Your task to perform on an android device: Open Amazon Image 0: 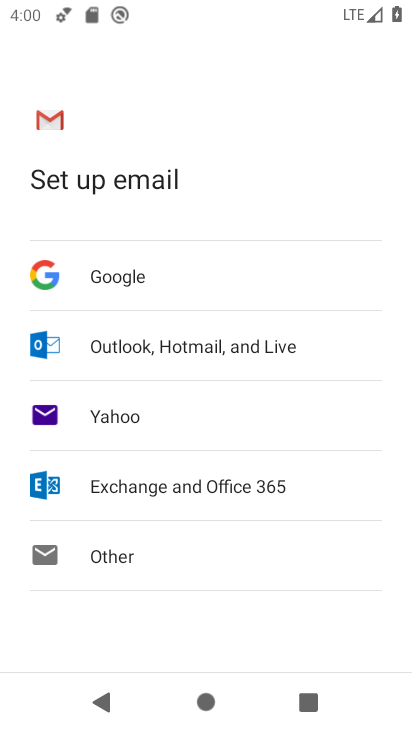
Step 0: press home button
Your task to perform on an android device: Open Amazon Image 1: 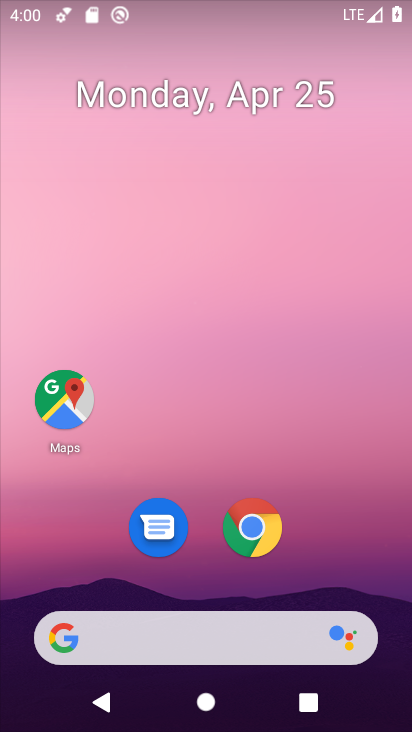
Step 1: click (254, 530)
Your task to perform on an android device: Open Amazon Image 2: 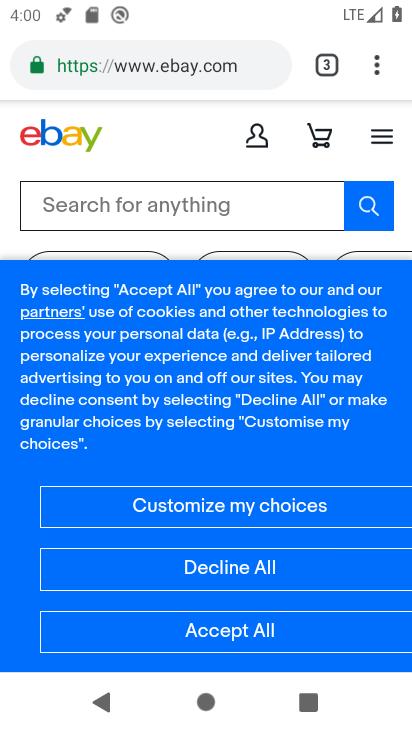
Step 2: click (201, 71)
Your task to perform on an android device: Open Amazon Image 3: 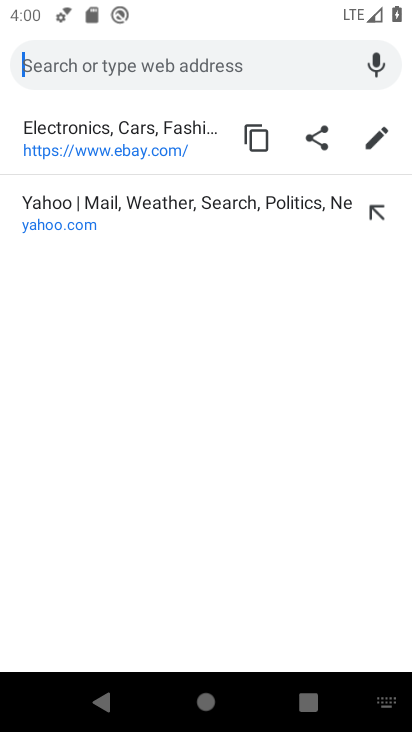
Step 3: type "amazon"
Your task to perform on an android device: Open Amazon Image 4: 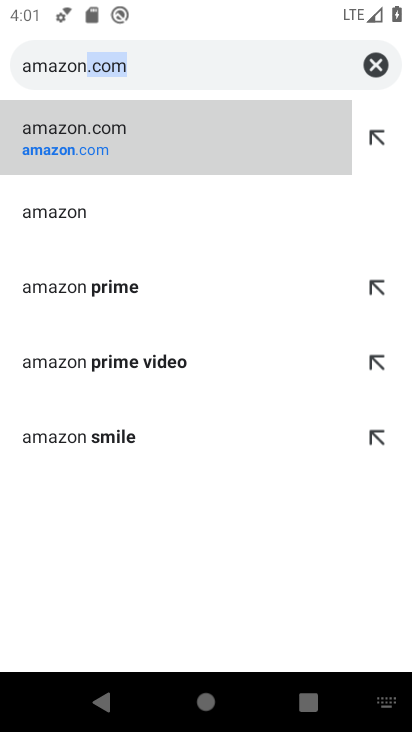
Step 4: click (55, 125)
Your task to perform on an android device: Open Amazon Image 5: 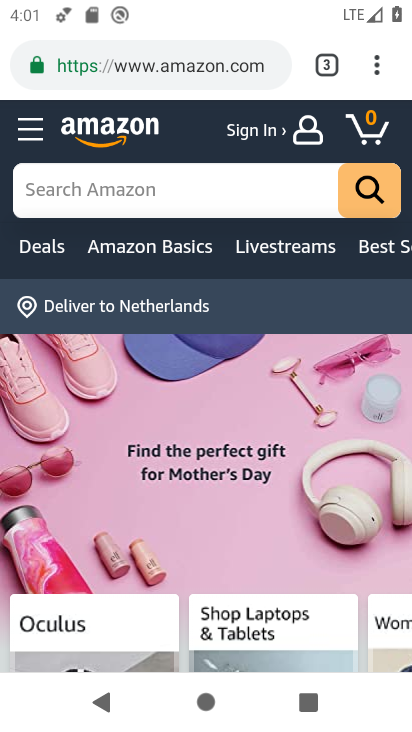
Step 5: task complete